Your task to perform on an android device: Open wifi settings Image 0: 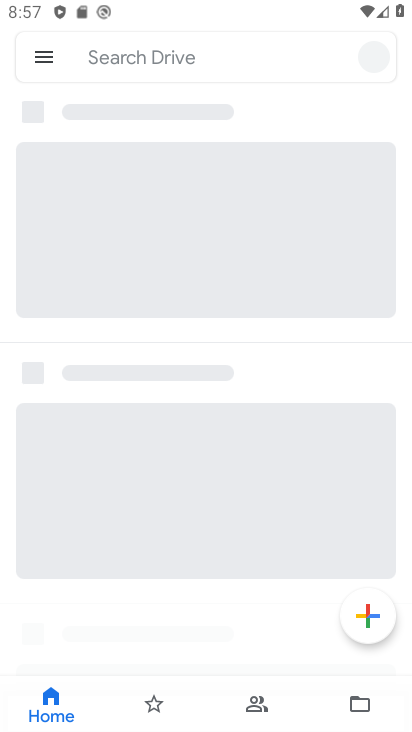
Step 0: press home button
Your task to perform on an android device: Open wifi settings Image 1: 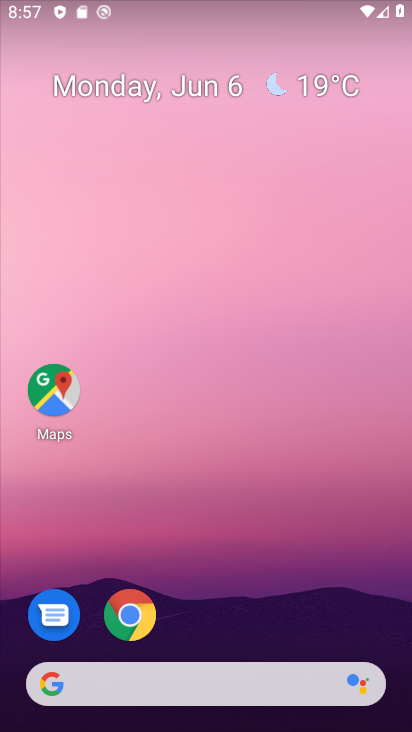
Step 1: drag from (217, 647) to (173, 22)
Your task to perform on an android device: Open wifi settings Image 2: 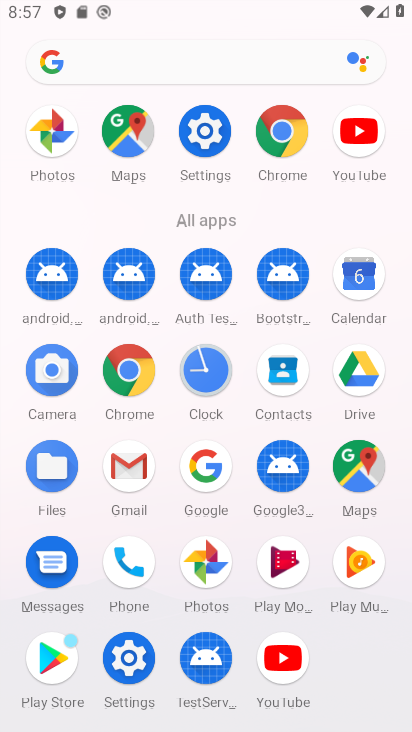
Step 2: click (202, 135)
Your task to perform on an android device: Open wifi settings Image 3: 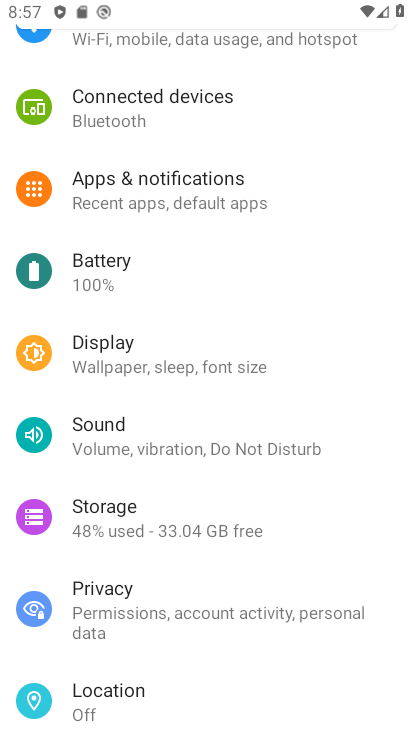
Step 3: click (167, 31)
Your task to perform on an android device: Open wifi settings Image 4: 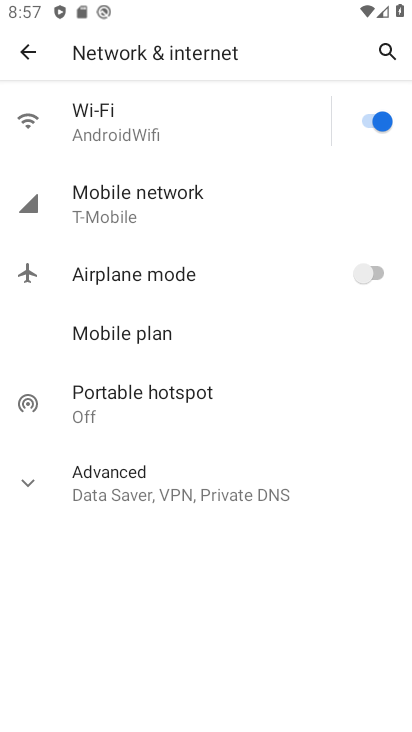
Step 4: click (170, 102)
Your task to perform on an android device: Open wifi settings Image 5: 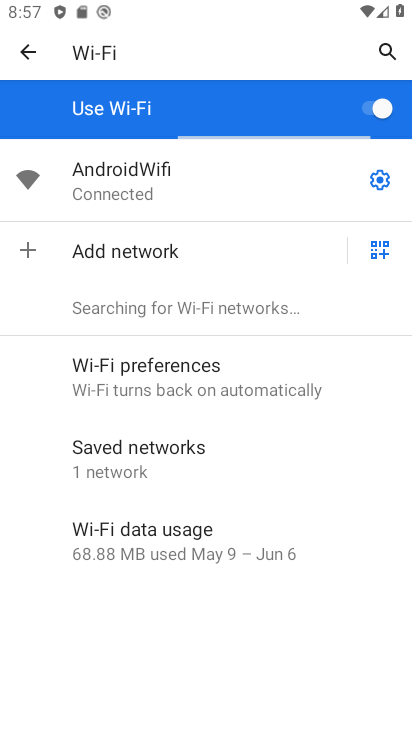
Step 5: task complete